Your task to perform on an android device: Go to display settings Image 0: 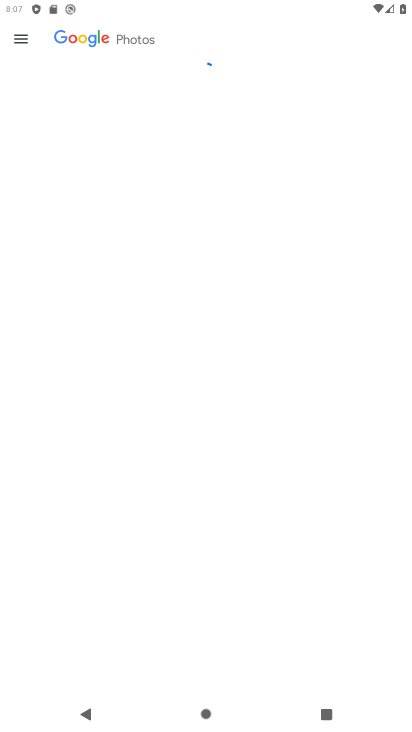
Step 0: press home button
Your task to perform on an android device: Go to display settings Image 1: 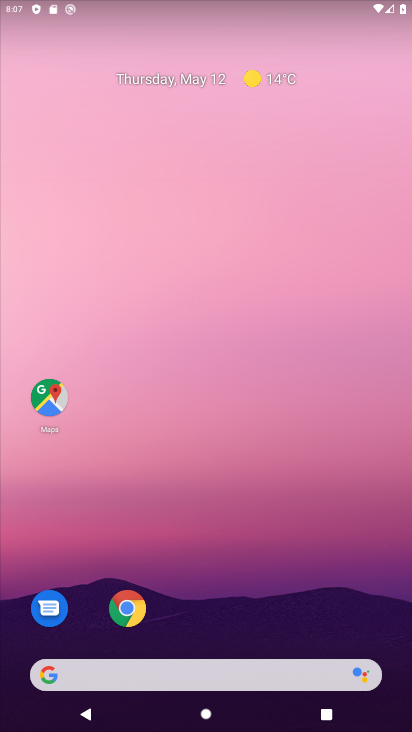
Step 1: drag from (206, 656) to (196, 204)
Your task to perform on an android device: Go to display settings Image 2: 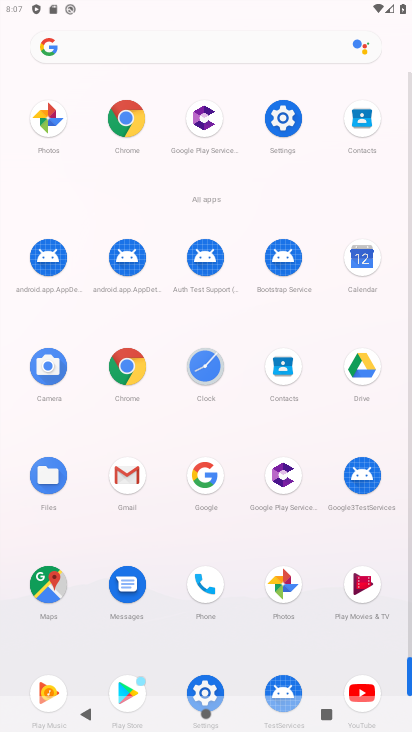
Step 2: click (275, 111)
Your task to perform on an android device: Go to display settings Image 3: 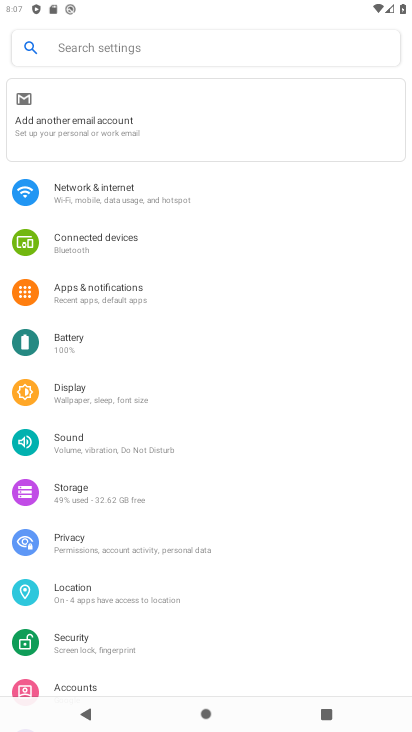
Step 3: click (53, 402)
Your task to perform on an android device: Go to display settings Image 4: 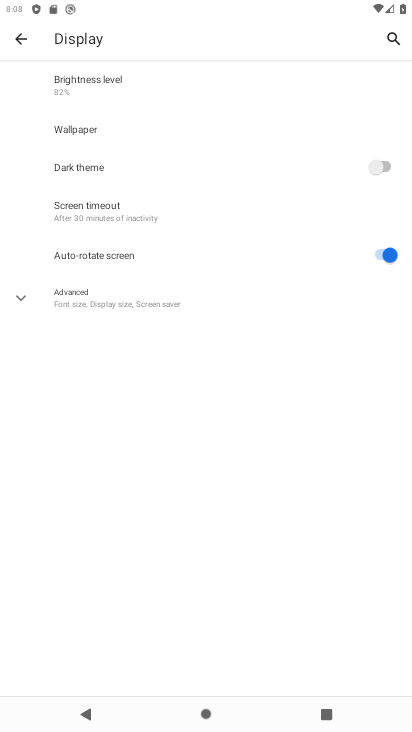
Step 4: click (98, 293)
Your task to perform on an android device: Go to display settings Image 5: 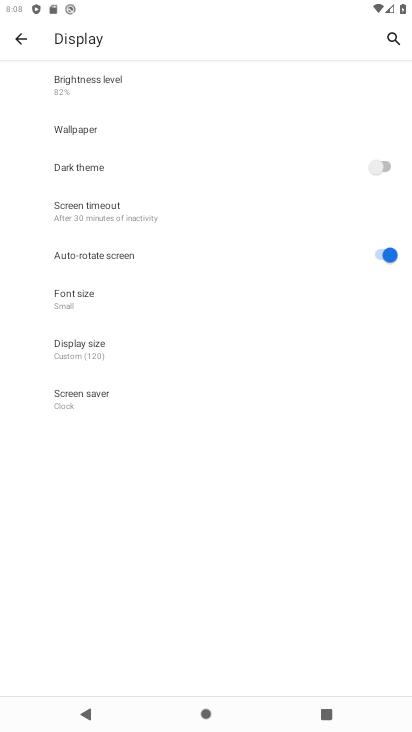
Step 5: task complete